Your task to perform on an android device: toggle priority inbox in the gmail app Image 0: 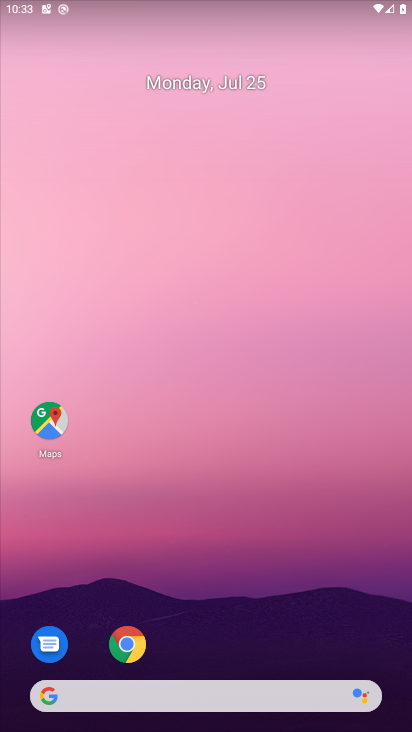
Step 0: drag from (319, 641) to (334, 195)
Your task to perform on an android device: toggle priority inbox in the gmail app Image 1: 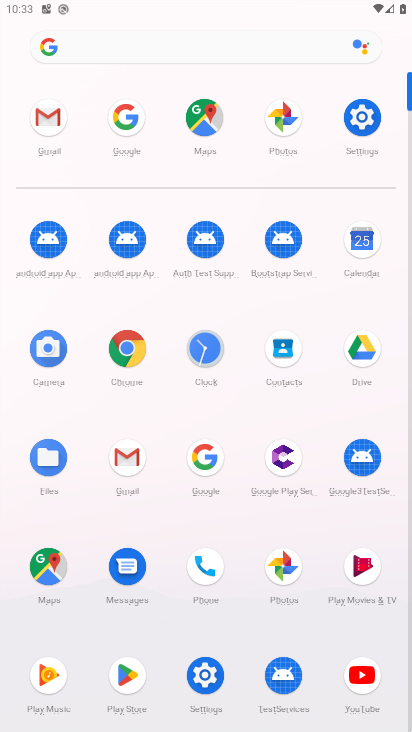
Step 1: click (64, 109)
Your task to perform on an android device: toggle priority inbox in the gmail app Image 2: 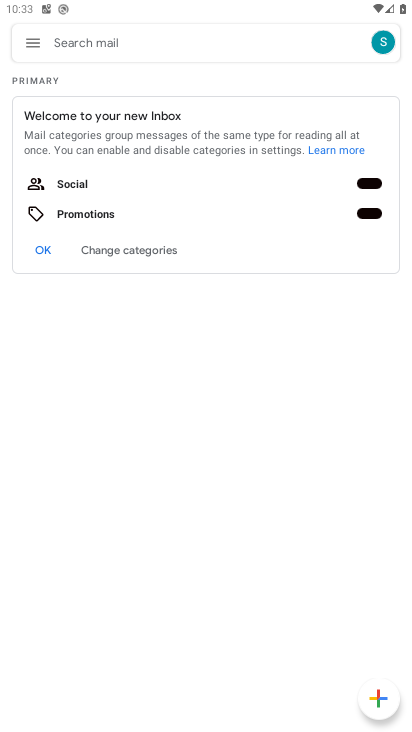
Step 2: click (25, 42)
Your task to perform on an android device: toggle priority inbox in the gmail app Image 3: 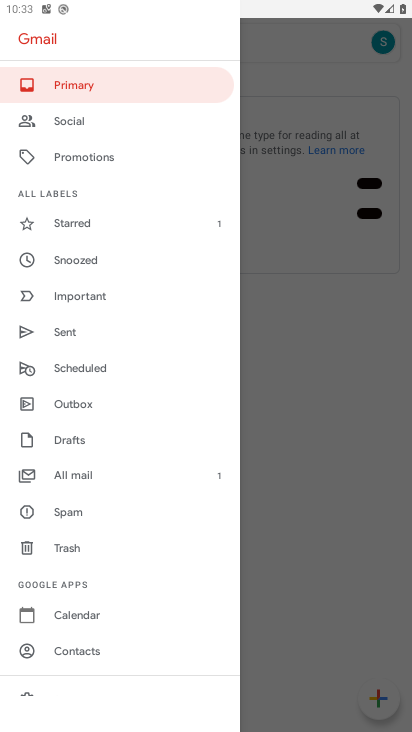
Step 3: drag from (98, 590) to (4, 237)
Your task to perform on an android device: toggle priority inbox in the gmail app Image 4: 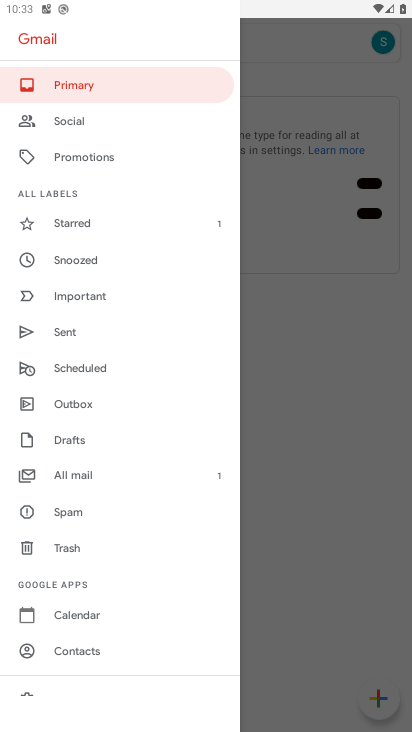
Step 4: drag from (62, 615) to (67, 269)
Your task to perform on an android device: toggle priority inbox in the gmail app Image 5: 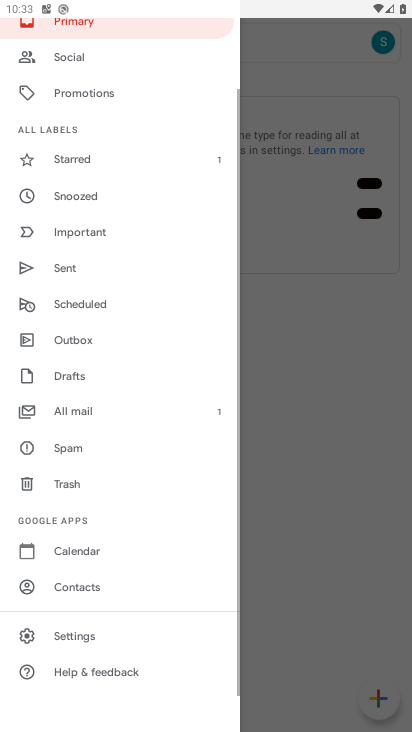
Step 5: click (80, 633)
Your task to perform on an android device: toggle priority inbox in the gmail app Image 6: 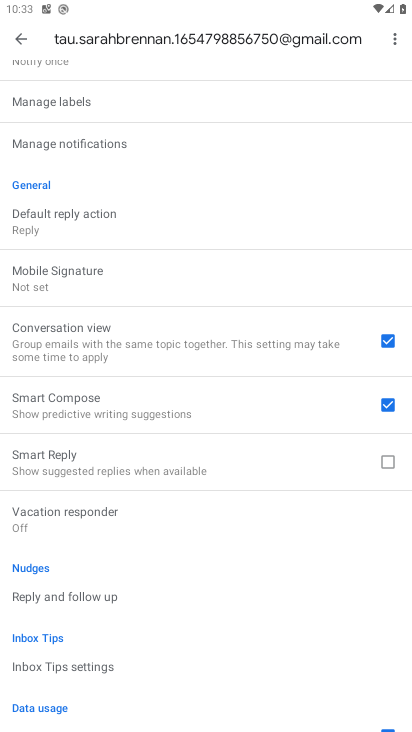
Step 6: drag from (29, 181) to (84, 636)
Your task to perform on an android device: toggle priority inbox in the gmail app Image 7: 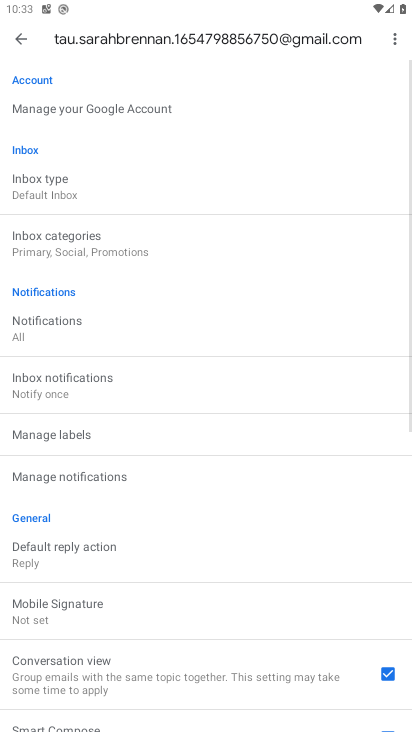
Step 7: click (35, 191)
Your task to perform on an android device: toggle priority inbox in the gmail app Image 8: 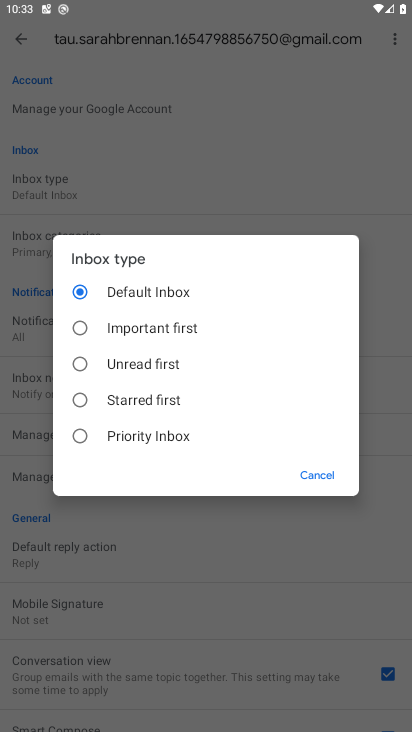
Step 8: click (148, 438)
Your task to perform on an android device: toggle priority inbox in the gmail app Image 9: 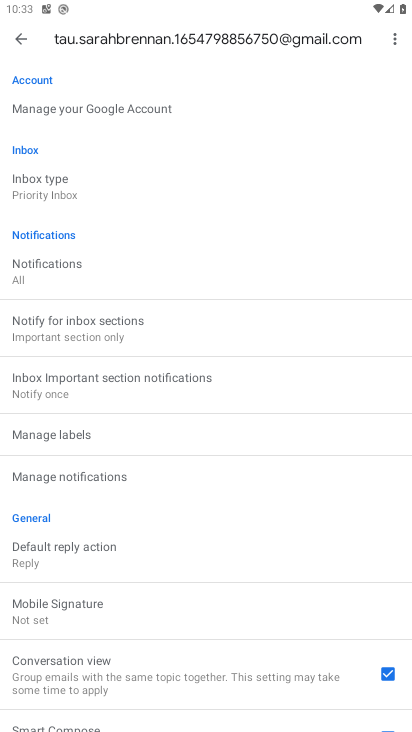
Step 9: task complete